Your task to perform on an android device: Open calendar and show me the fourth week of next month Image 0: 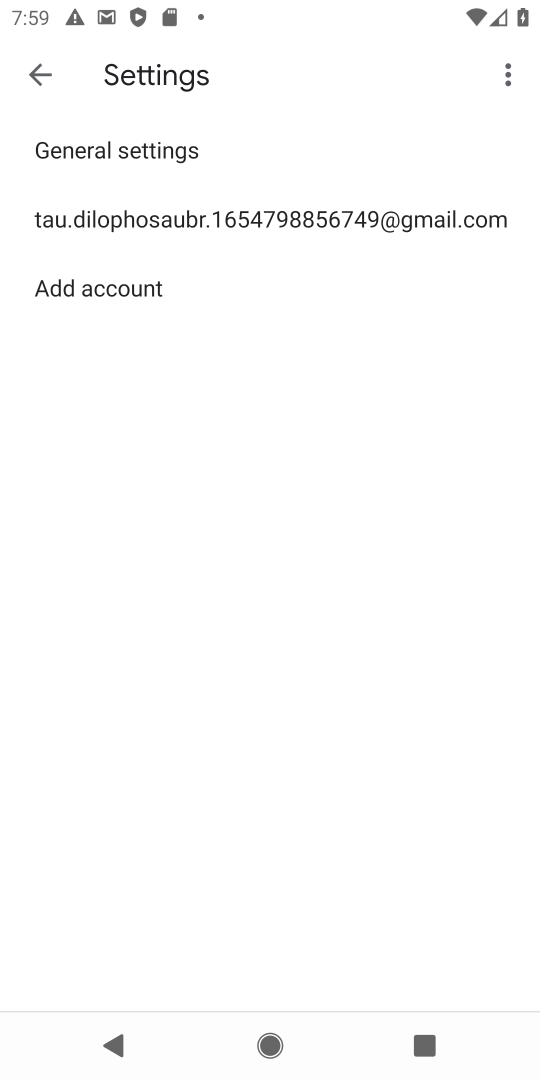
Step 0: press home button
Your task to perform on an android device: Open calendar and show me the fourth week of next month Image 1: 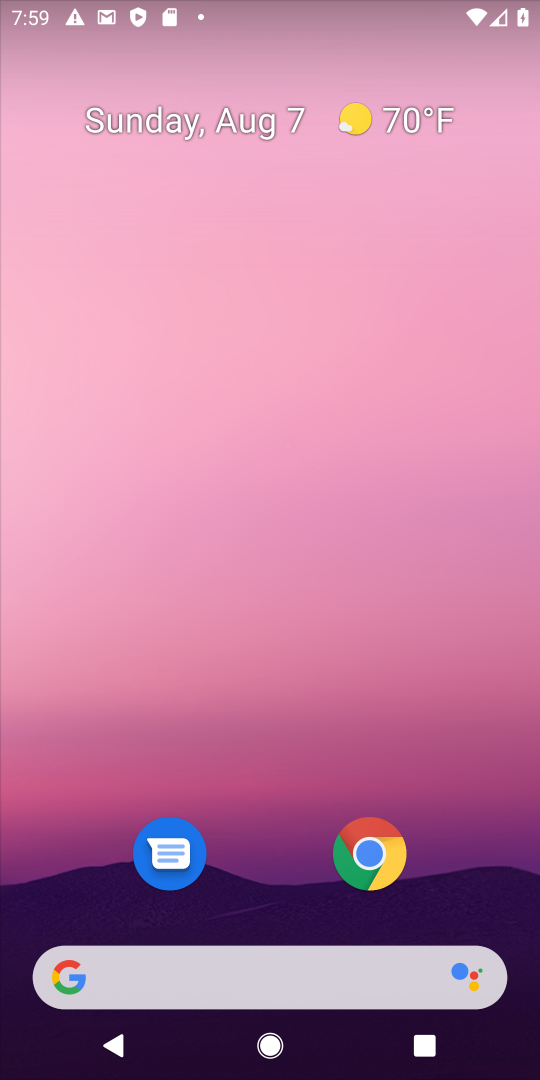
Step 1: drag from (314, 700) to (215, 80)
Your task to perform on an android device: Open calendar and show me the fourth week of next month Image 2: 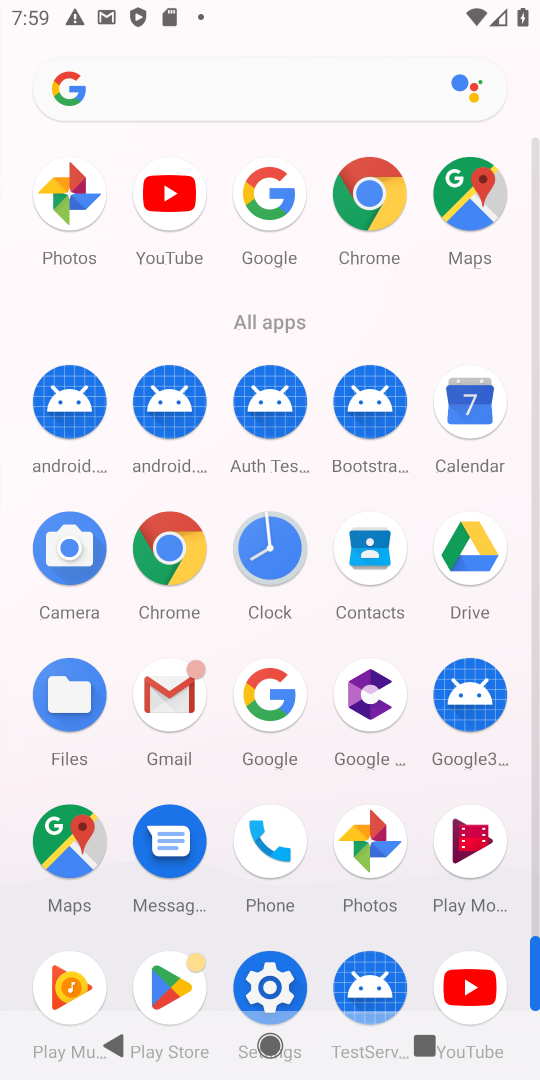
Step 2: drag from (307, 346) to (307, 289)
Your task to perform on an android device: Open calendar and show me the fourth week of next month Image 3: 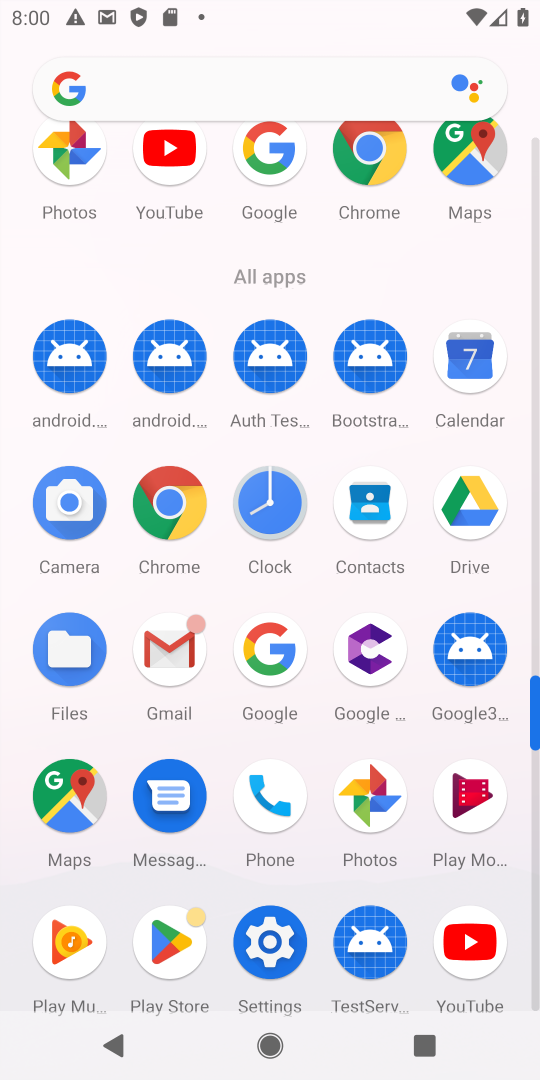
Step 3: click (451, 389)
Your task to perform on an android device: Open calendar and show me the fourth week of next month Image 4: 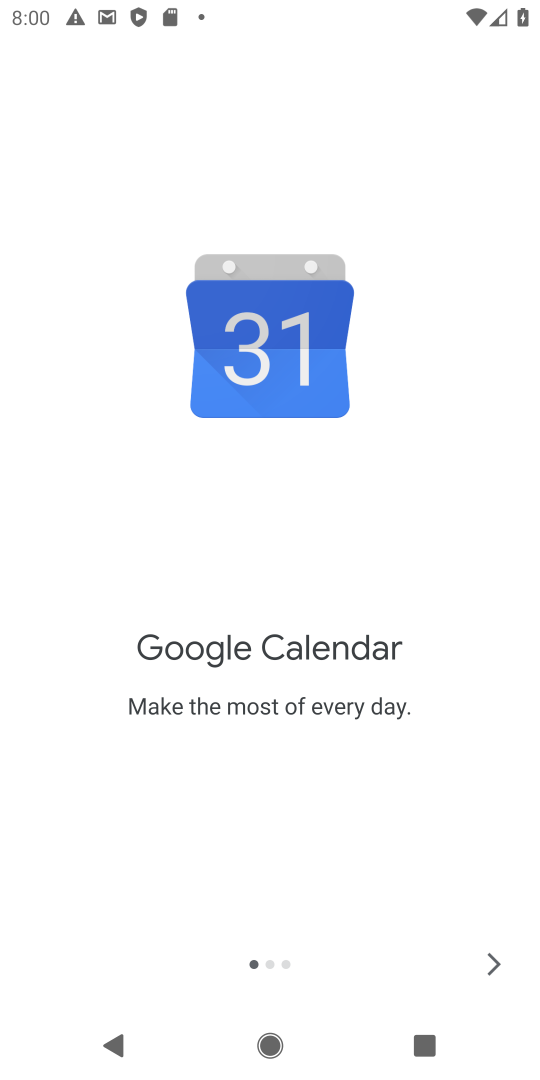
Step 4: click (496, 963)
Your task to perform on an android device: Open calendar and show me the fourth week of next month Image 5: 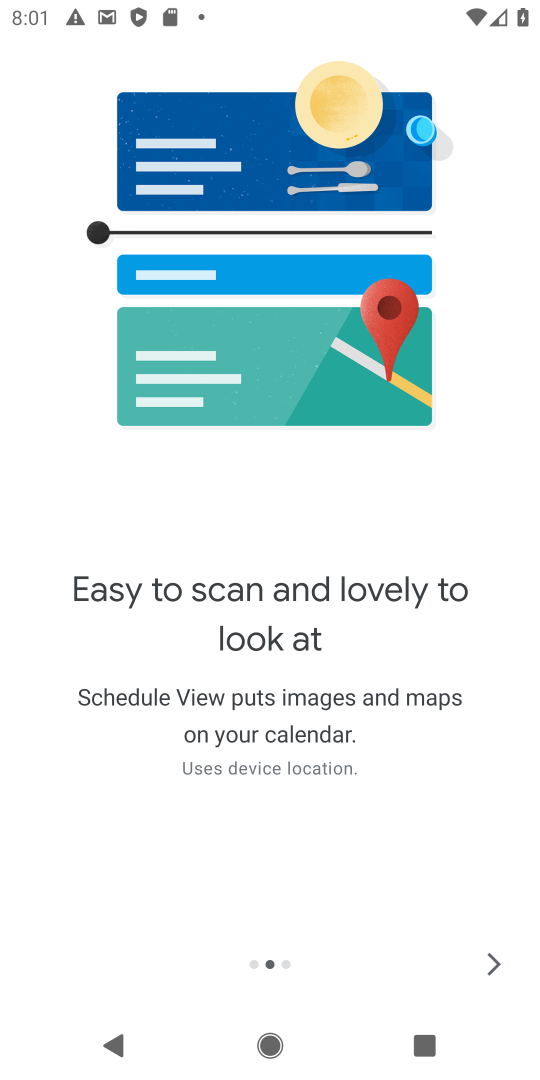
Step 5: click (496, 962)
Your task to perform on an android device: Open calendar and show me the fourth week of next month Image 6: 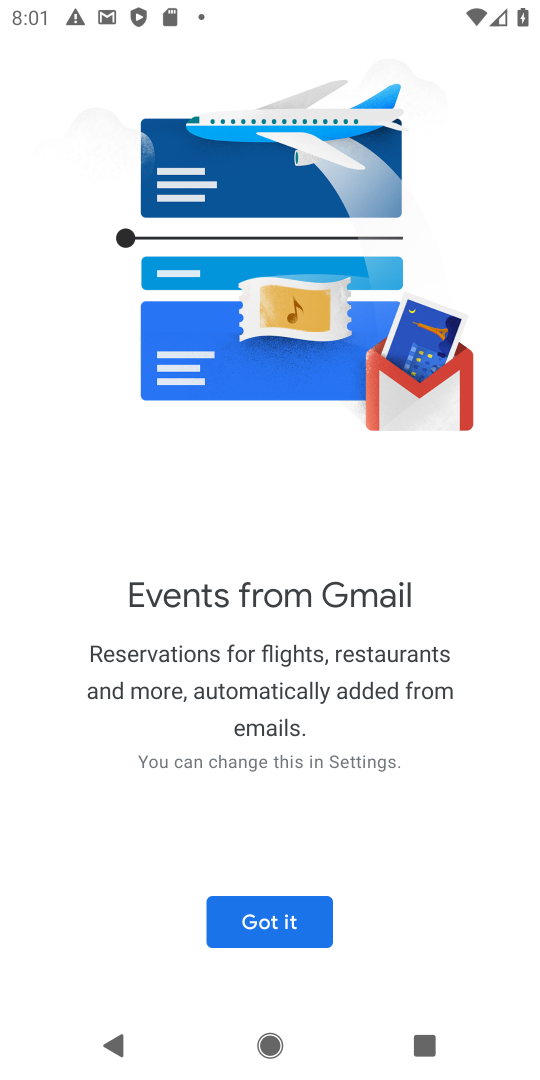
Step 6: click (496, 961)
Your task to perform on an android device: Open calendar and show me the fourth week of next month Image 7: 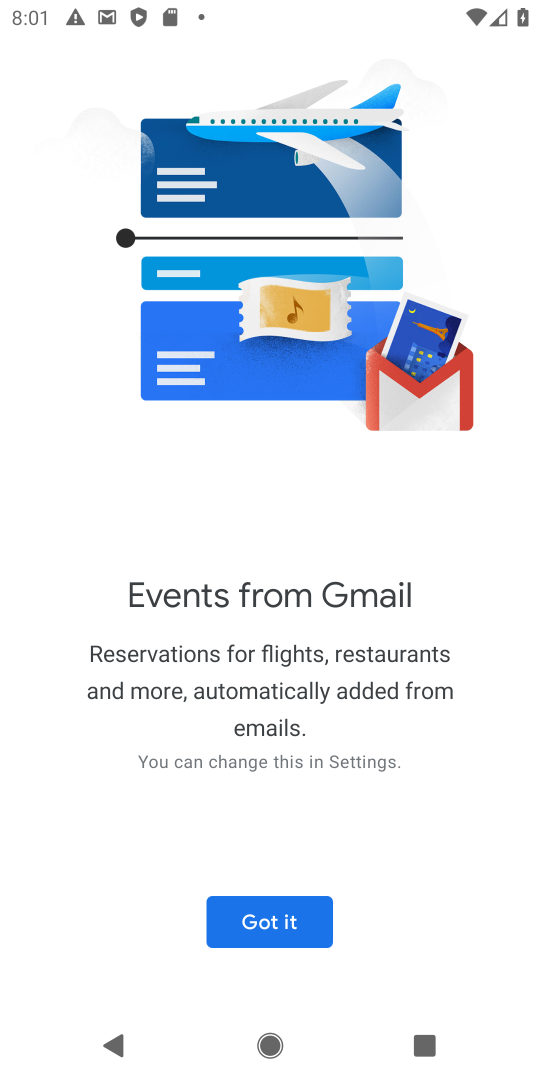
Step 7: click (259, 903)
Your task to perform on an android device: Open calendar and show me the fourth week of next month Image 8: 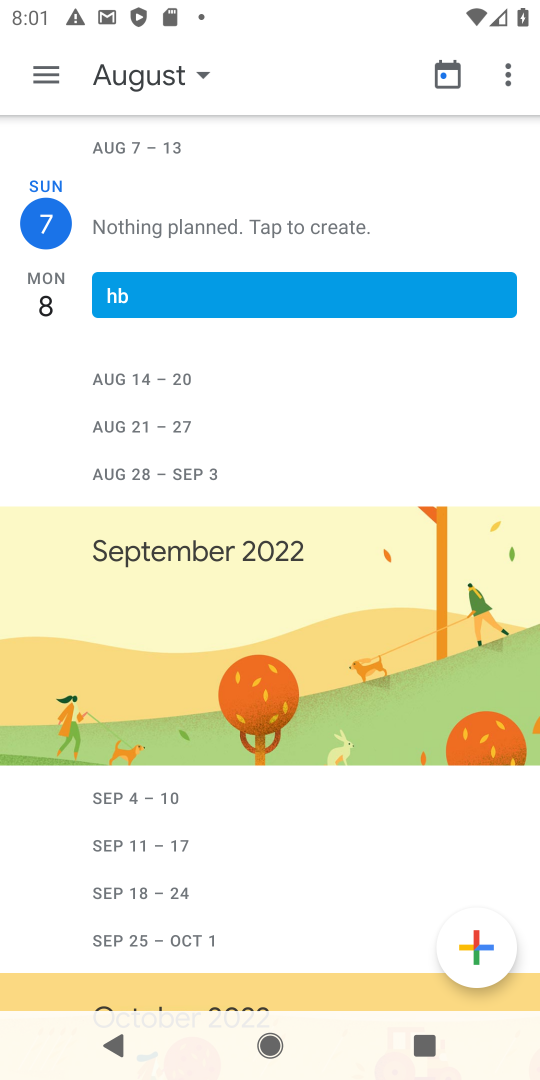
Step 8: click (175, 92)
Your task to perform on an android device: Open calendar and show me the fourth week of next month Image 9: 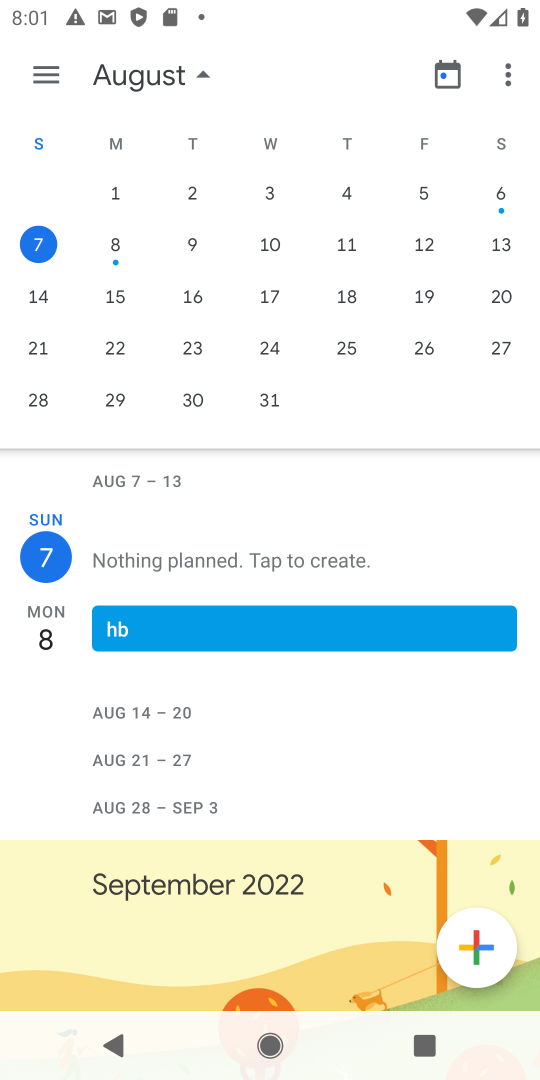
Step 9: drag from (371, 332) to (12, 303)
Your task to perform on an android device: Open calendar and show me the fourth week of next month Image 10: 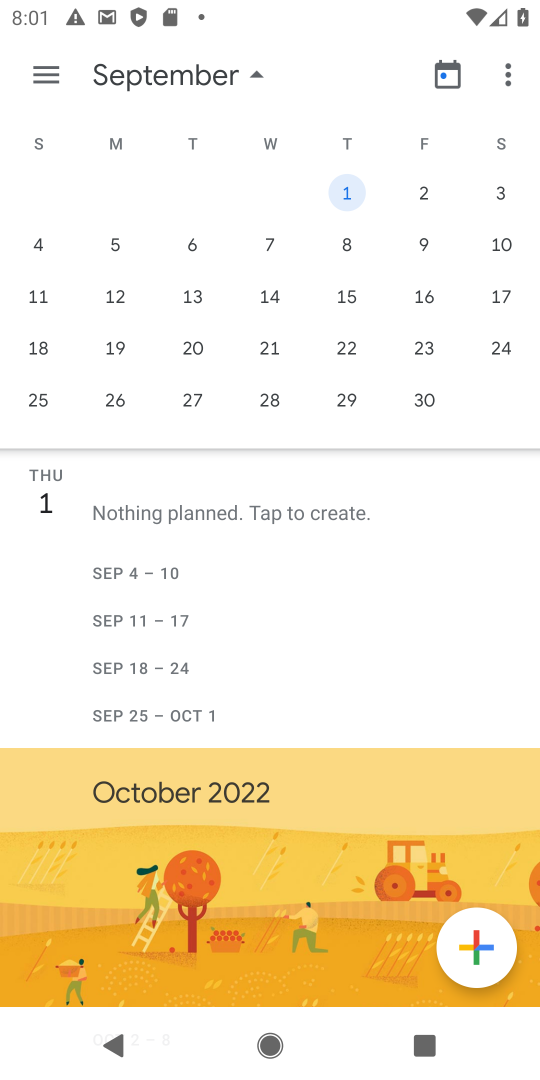
Step 10: click (37, 349)
Your task to perform on an android device: Open calendar and show me the fourth week of next month Image 11: 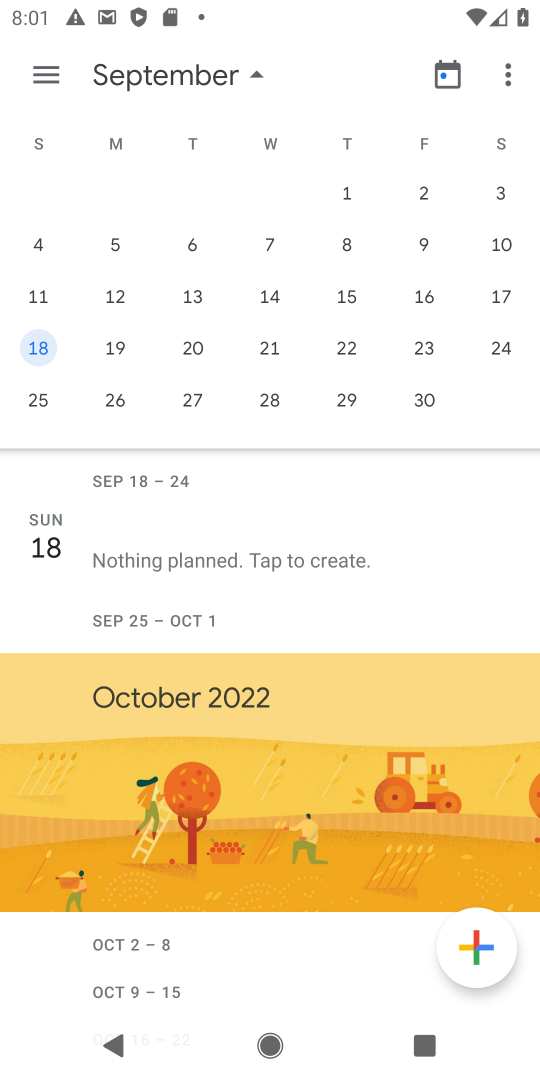
Step 11: task complete